Your task to perform on an android device: change the clock display to digital Image 0: 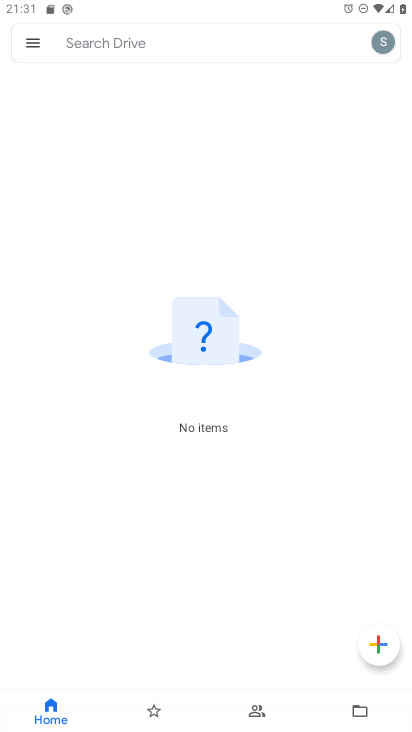
Step 0: press home button
Your task to perform on an android device: change the clock display to digital Image 1: 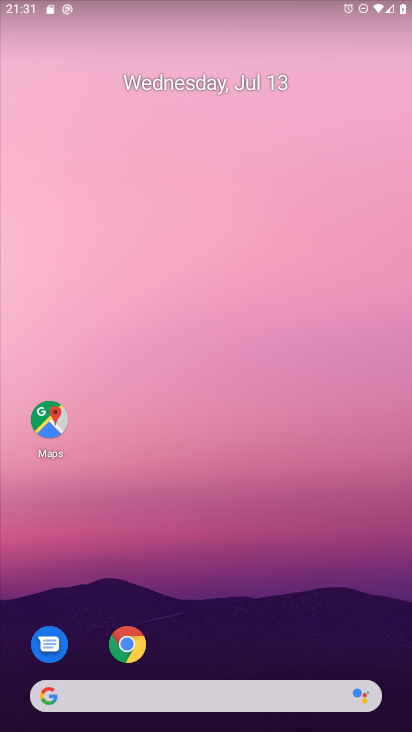
Step 1: drag from (285, 517) to (276, 53)
Your task to perform on an android device: change the clock display to digital Image 2: 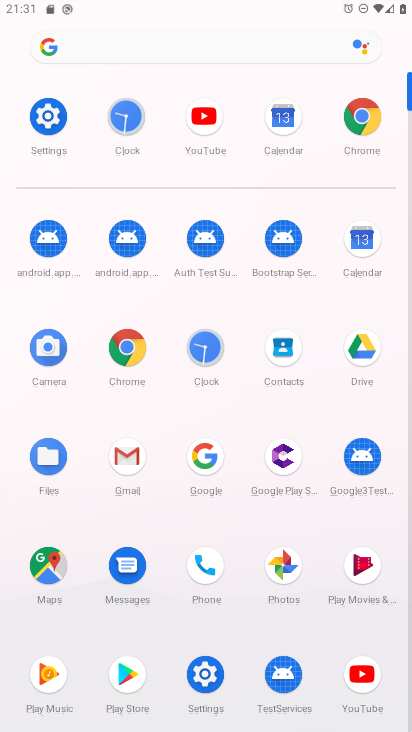
Step 2: click (209, 352)
Your task to perform on an android device: change the clock display to digital Image 3: 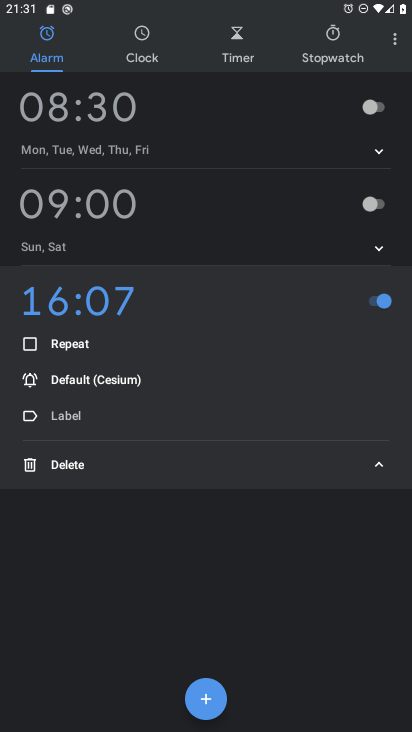
Step 3: click (388, 41)
Your task to perform on an android device: change the clock display to digital Image 4: 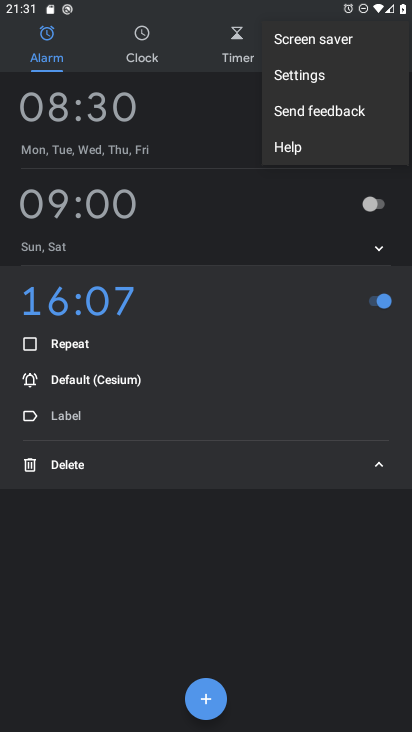
Step 4: click (342, 81)
Your task to perform on an android device: change the clock display to digital Image 5: 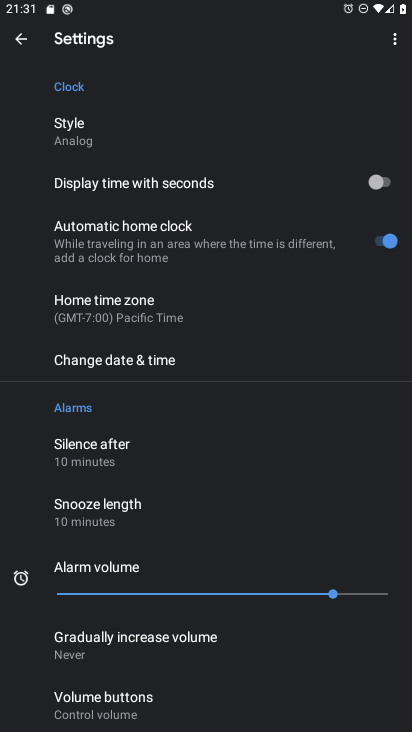
Step 5: click (85, 139)
Your task to perform on an android device: change the clock display to digital Image 6: 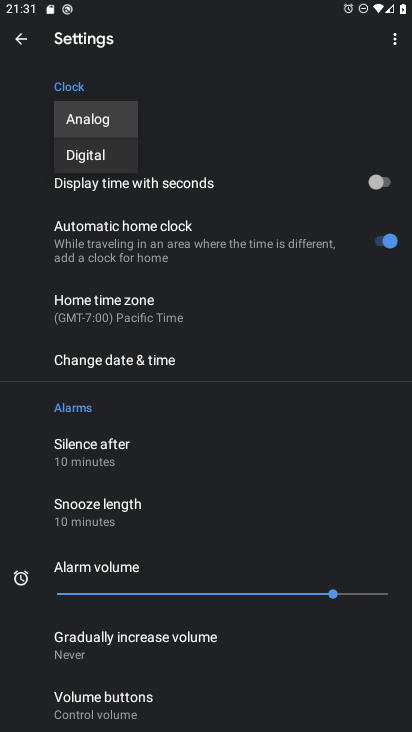
Step 6: click (88, 161)
Your task to perform on an android device: change the clock display to digital Image 7: 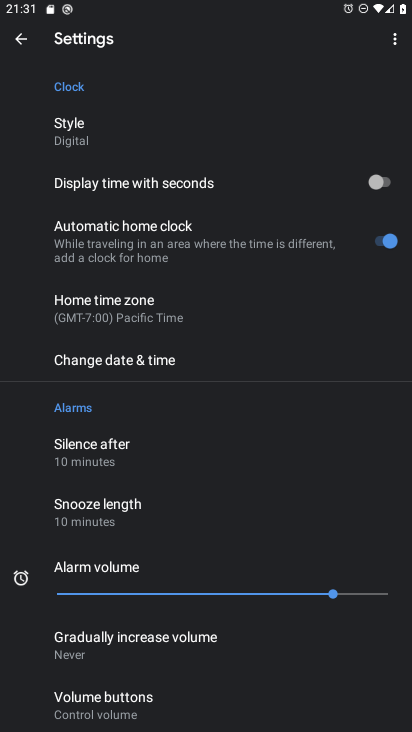
Step 7: task complete